Your task to perform on an android device: change the clock style Image 0: 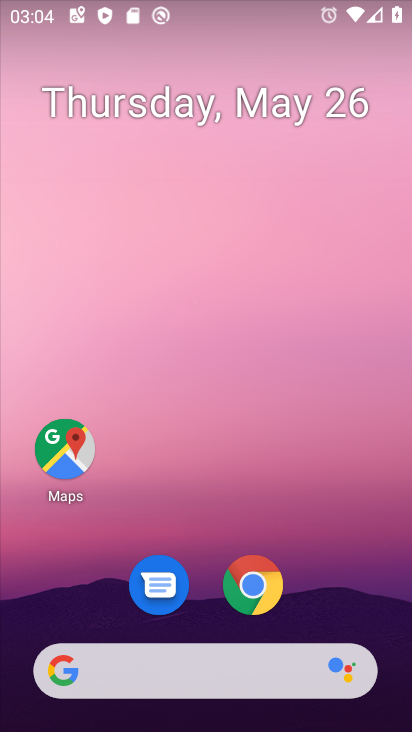
Step 0: drag from (218, 503) to (225, 101)
Your task to perform on an android device: change the clock style Image 1: 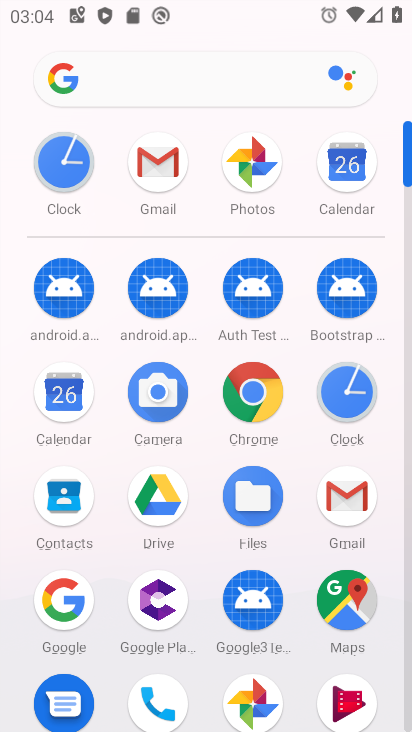
Step 1: click (69, 154)
Your task to perform on an android device: change the clock style Image 2: 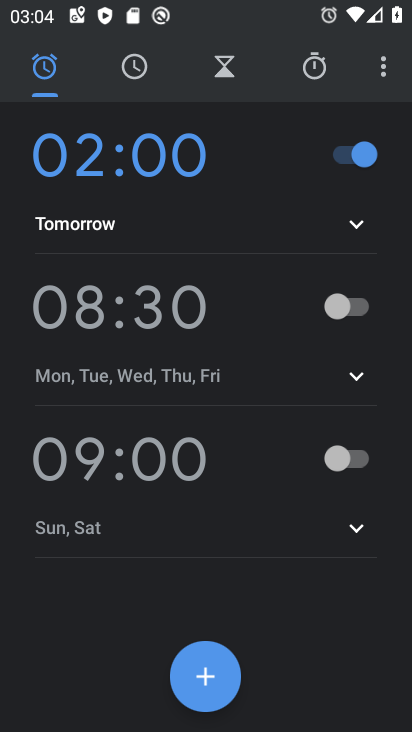
Step 2: click (386, 73)
Your task to perform on an android device: change the clock style Image 3: 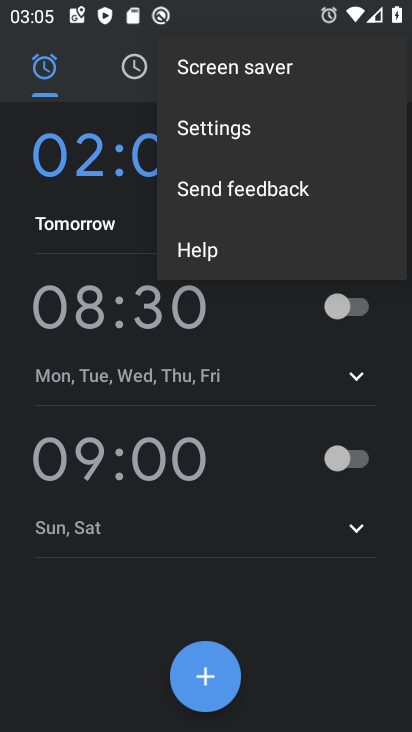
Step 3: click (266, 127)
Your task to perform on an android device: change the clock style Image 4: 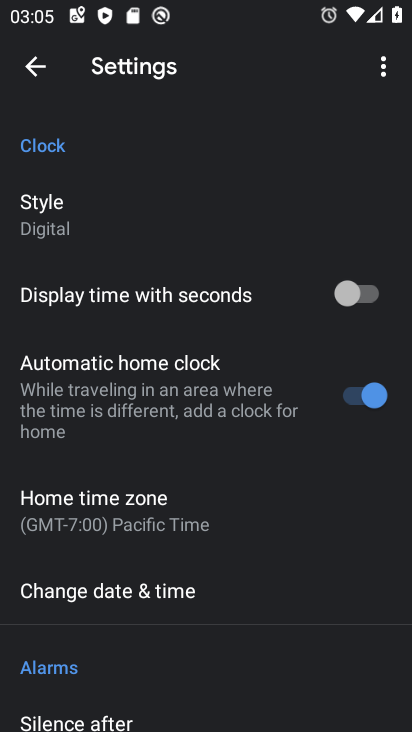
Step 4: click (103, 210)
Your task to perform on an android device: change the clock style Image 5: 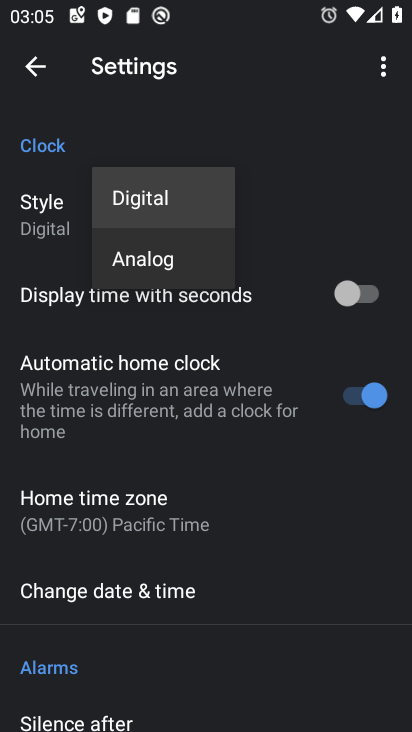
Step 5: click (136, 246)
Your task to perform on an android device: change the clock style Image 6: 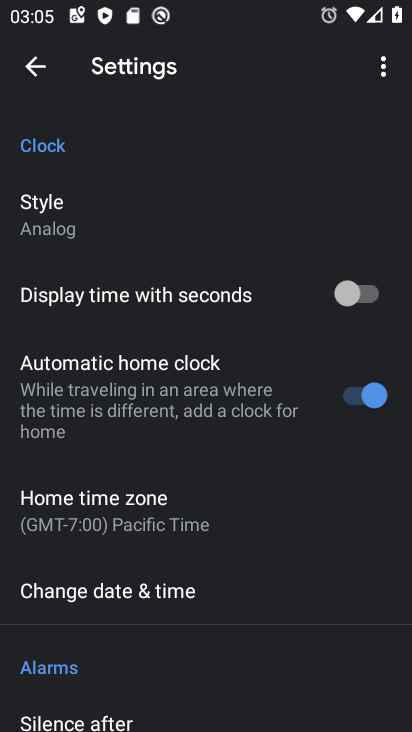
Step 6: click (41, 69)
Your task to perform on an android device: change the clock style Image 7: 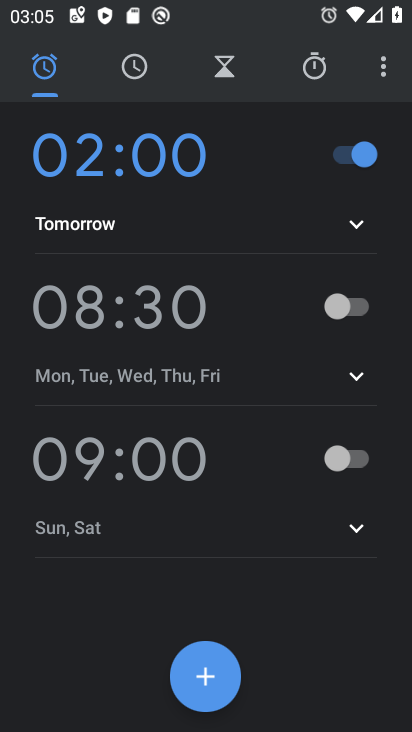
Step 7: click (138, 73)
Your task to perform on an android device: change the clock style Image 8: 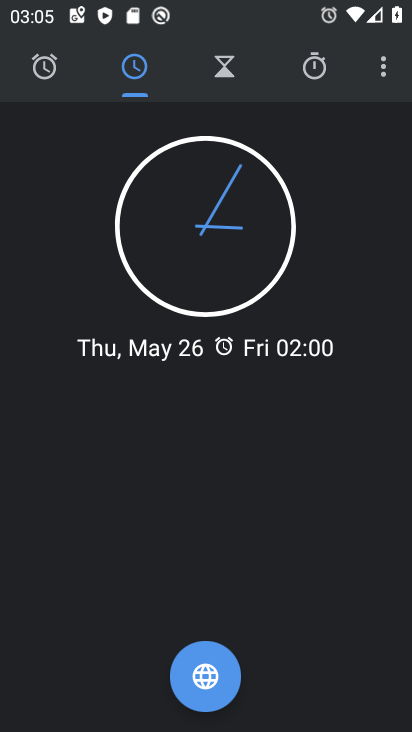
Step 8: task complete